Your task to perform on an android device: turn on airplane mode Image 0: 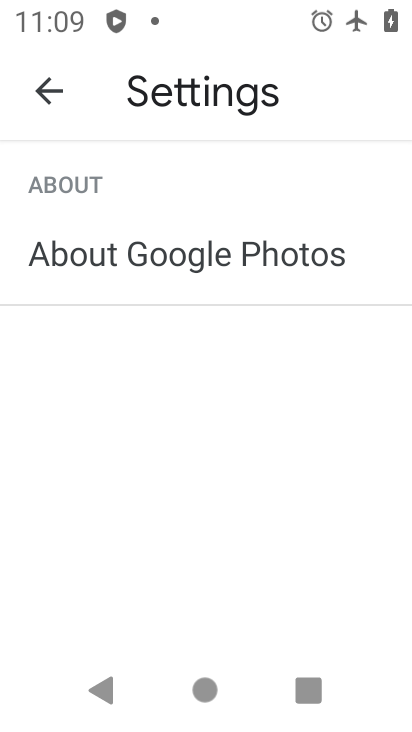
Step 0: press home button
Your task to perform on an android device: turn on airplane mode Image 1: 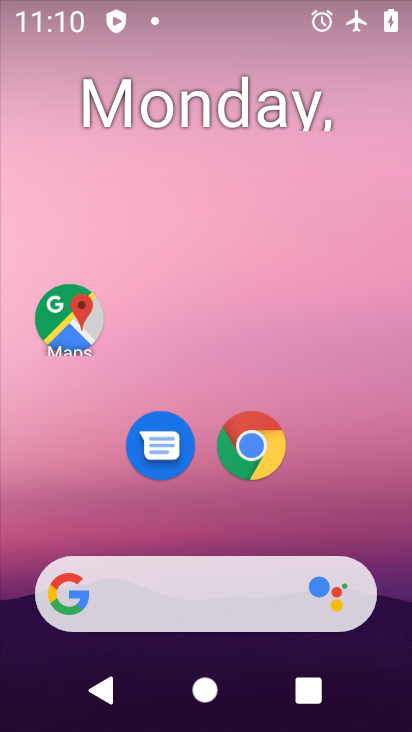
Step 1: drag from (228, 378) to (149, 85)
Your task to perform on an android device: turn on airplane mode Image 2: 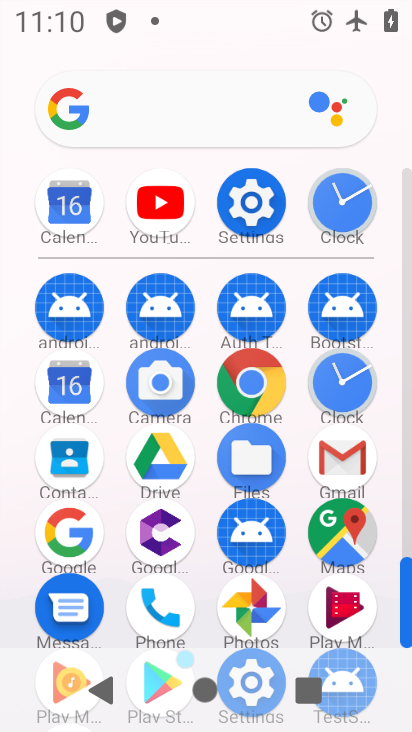
Step 2: click (264, 202)
Your task to perform on an android device: turn on airplane mode Image 3: 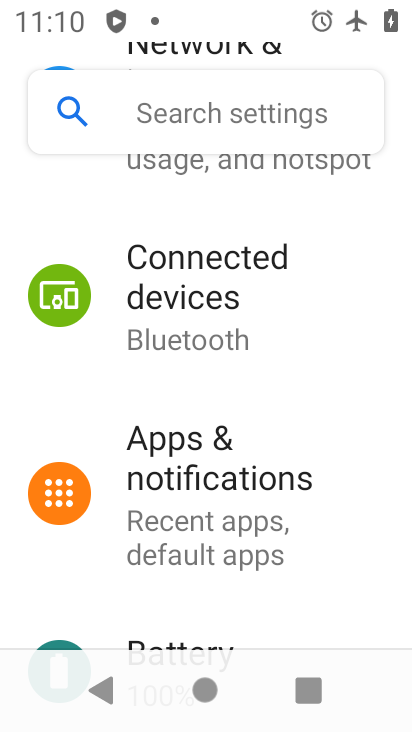
Step 3: drag from (199, 226) to (176, 534)
Your task to perform on an android device: turn on airplane mode Image 4: 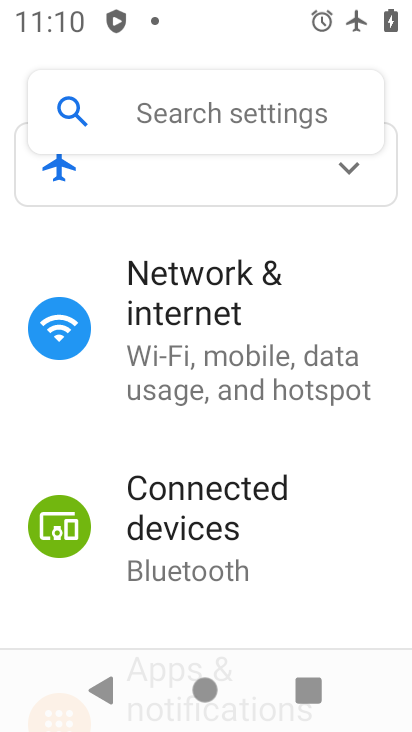
Step 4: click (192, 344)
Your task to perform on an android device: turn on airplane mode Image 5: 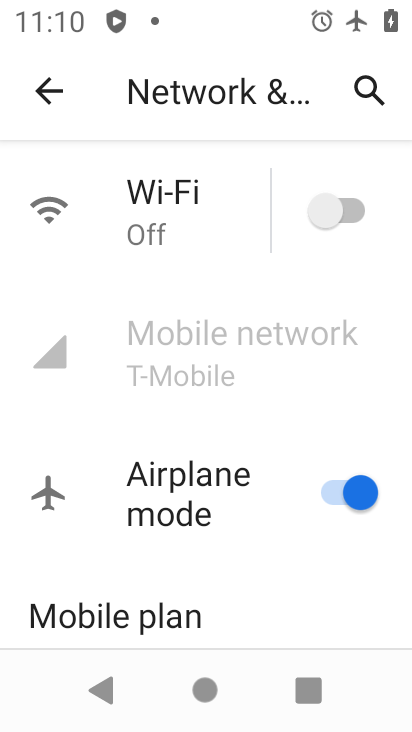
Step 5: task complete